Your task to perform on an android device: turn off picture-in-picture Image 0: 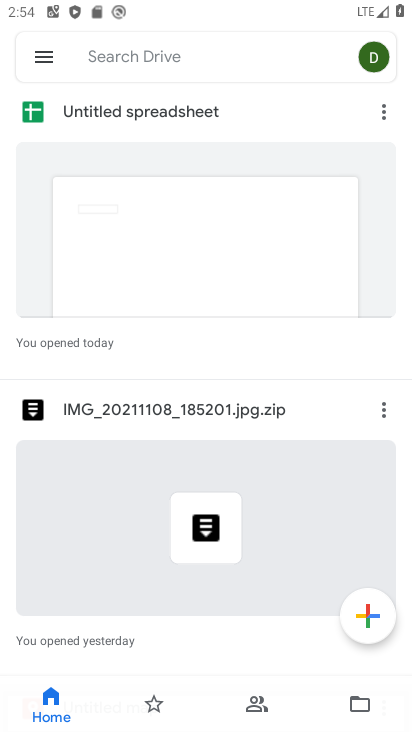
Step 0: press home button
Your task to perform on an android device: turn off picture-in-picture Image 1: 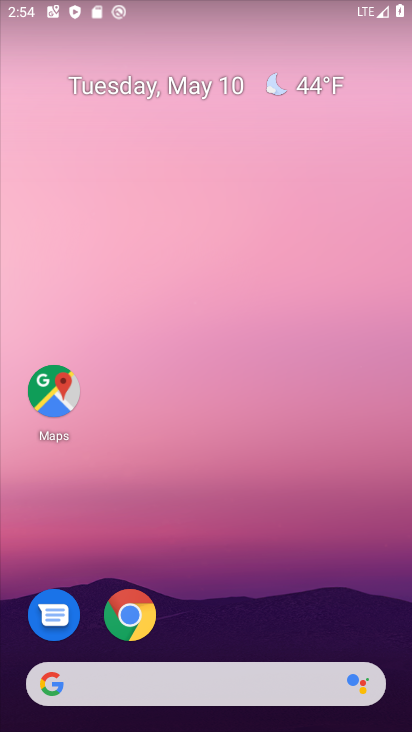
Step 1: click (163, 608)
Your task to perform on an android device: turn off picture-in-picture Image 2: 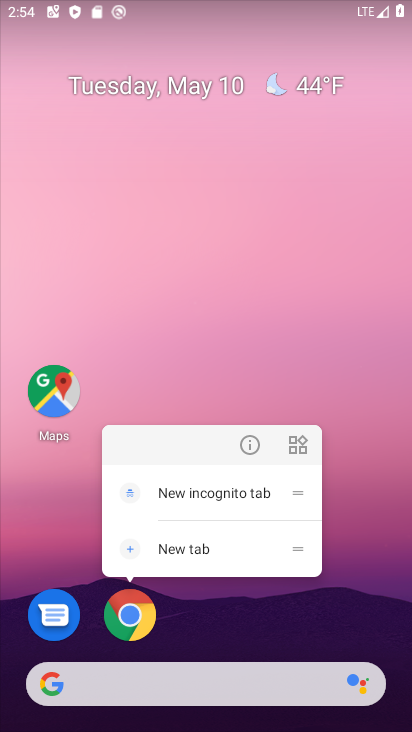
Step 2: click (249, 448)
Your task to perform on an android device: turn off picture-in-picture Image 3: 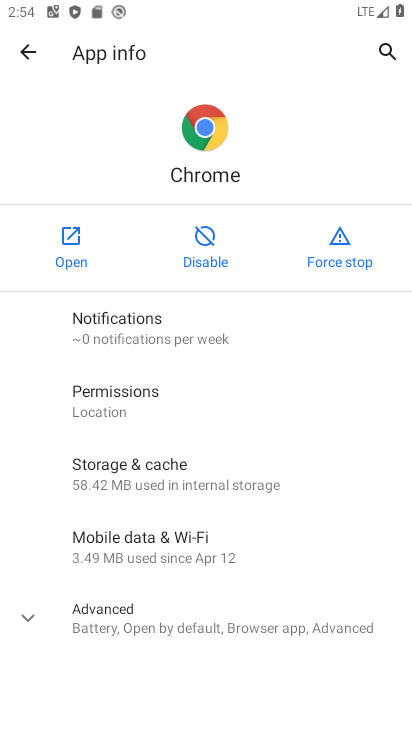
Step 3: click (218, 630)
Your task to perform on an android device: turn off picture-in-picture Image 4: 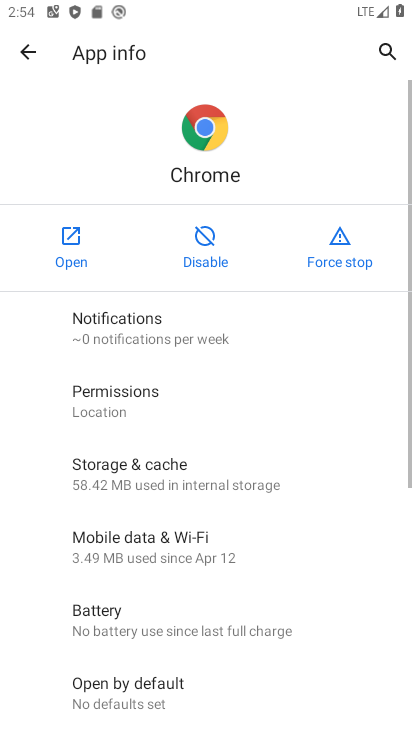
Step 4: drag from (218, 630) to (205, 318)
Your task to perform on an android device: turn off picture-in-picture Image 5: 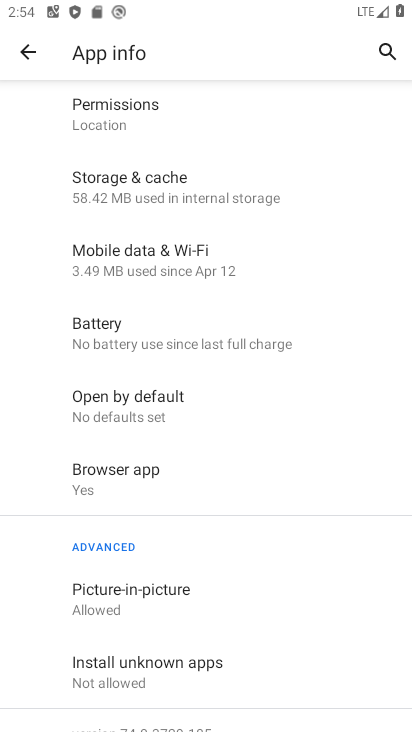
Step 5: click (188, 595)
Your task to perform on an android device: turn off picture-in-picture Image 6: 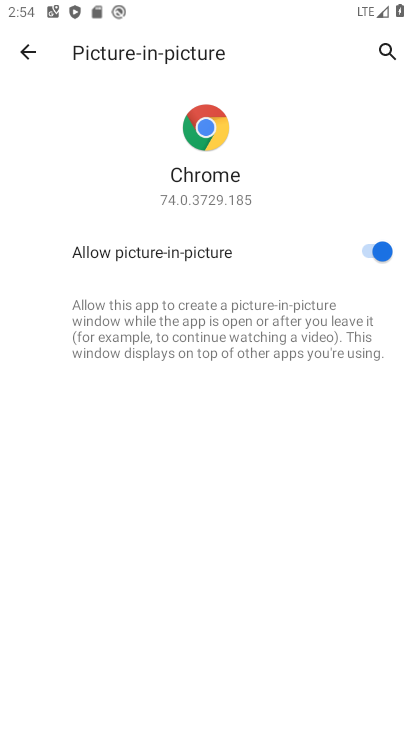
Step 6: click (360, 258)
Your task to perform on an android device: turn off picture-in-picture Image 7: 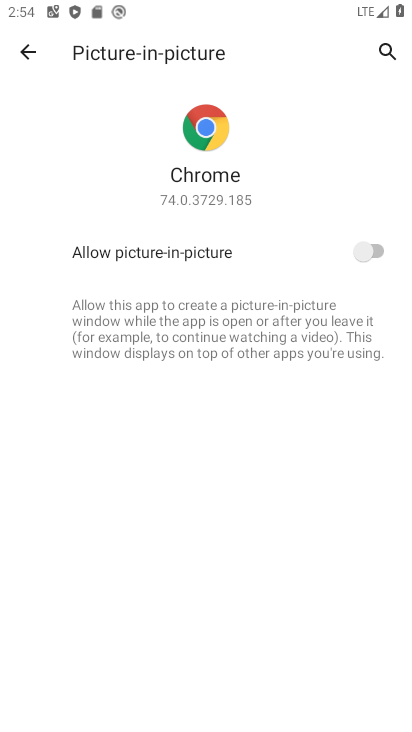
Step 7: task complete